Your task to perform on an android device: manage bookmarks in the chrome app Image 0: 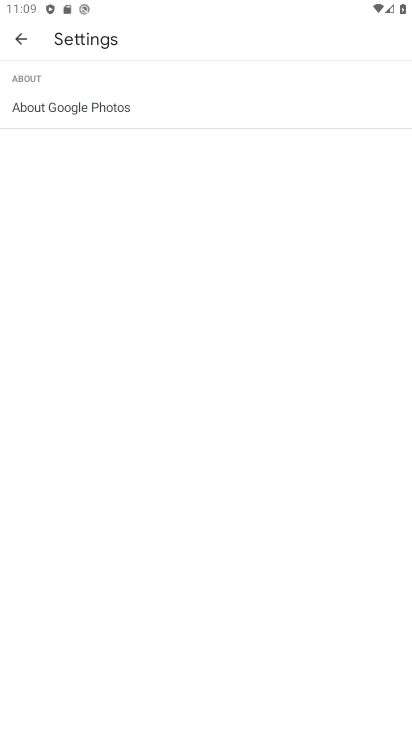
Step 0: press back button
Your task to perform on an android device: manage bookmarks in the chrome app Image 1: 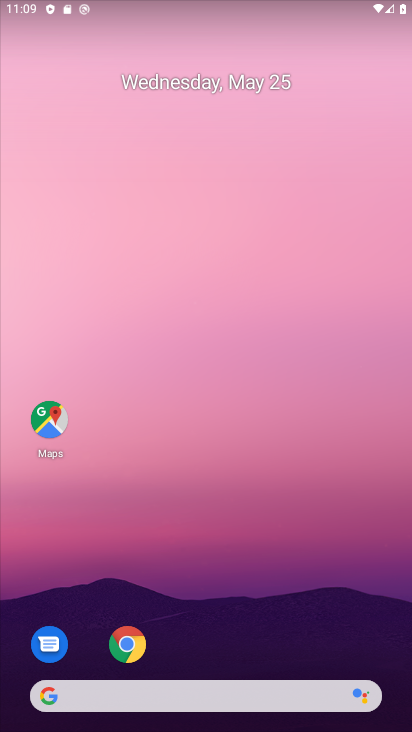
Step 1: click (127, 645)
Your task to perform on an android device: manage bookmarks in the chrome app Image 2: 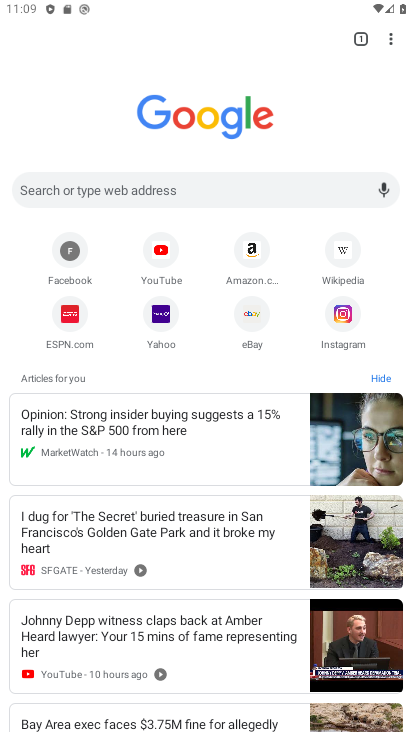
Step 2: click (392, 37)
Your task to perform on an android device: manage bookmarks in the chrome app Image 3: 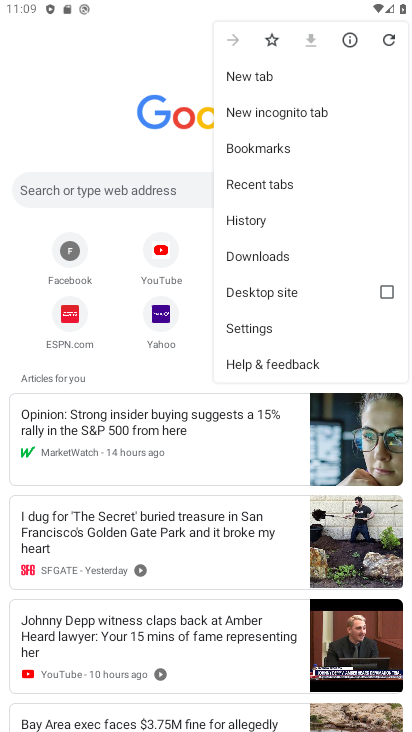
Step 3: click (269, 150)
Your task to perform on an android device: manage bookmarks in the chrome app Image 4: 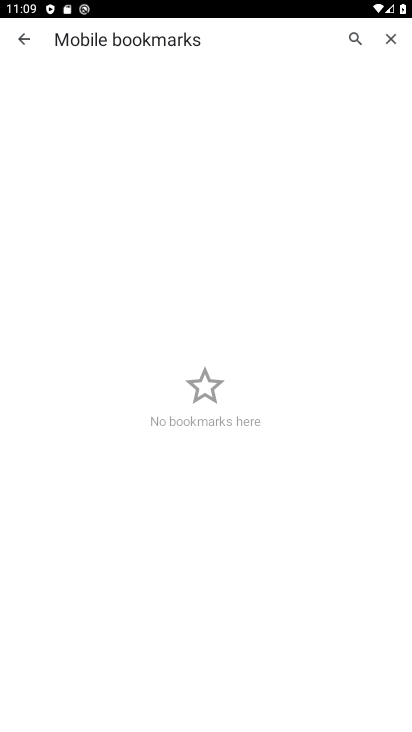
Step 4: task complete